Your task to perform on an android device: Open calendar and show me the second week of next month Image 0: 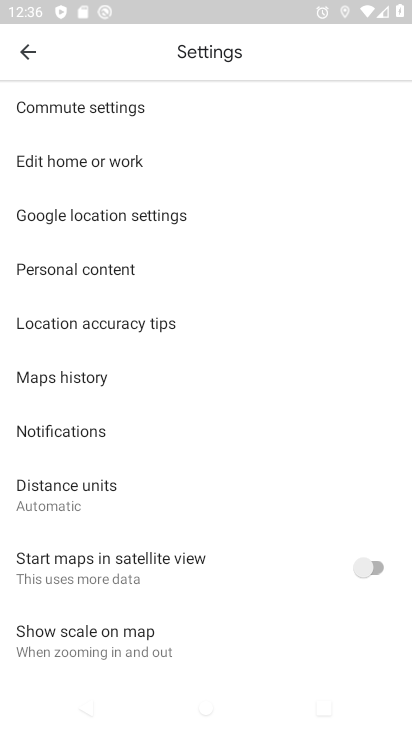
Step 0: press home button
Your task to perform on an android device: Open calendar and show me the second week of next month Image 1: 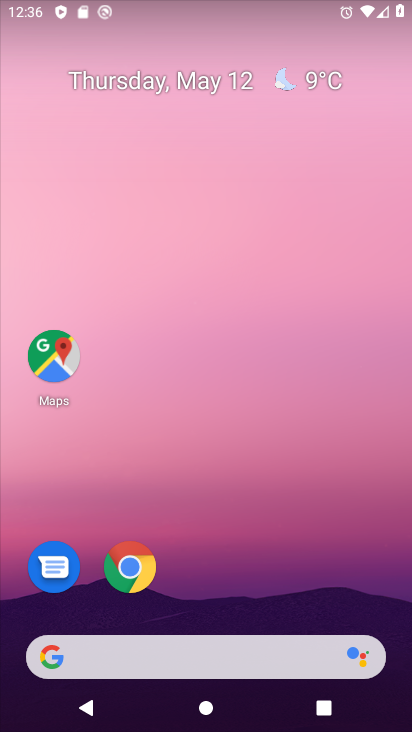
Step 1: drag from (187, 639) to (292, 78)
Your task to perform on an android device: Open calendar and show me the second week of next month Image 2: 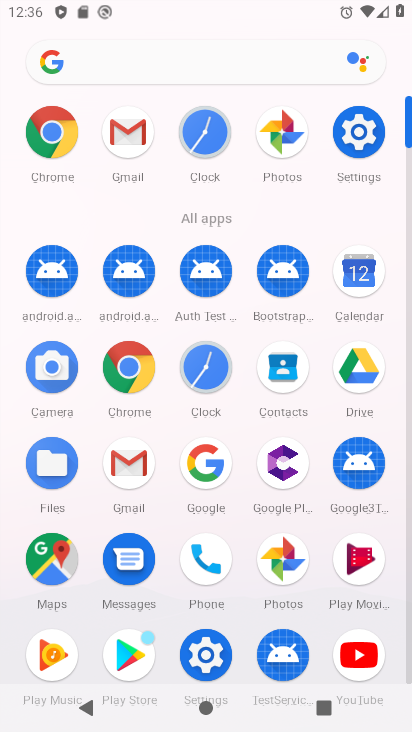
Step 2: click (380, 267)
Your task to perform on an android device: Open calendar and show me the second week of next month Image 3: 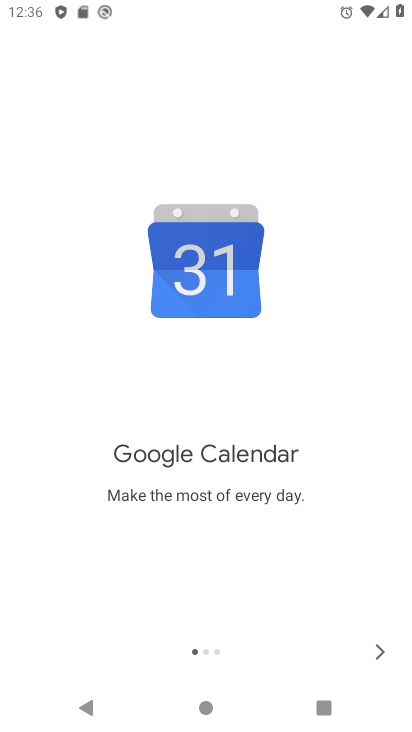
Step 3: click (388, 656)
Your task to perform on an android device: Open calendar and show me the second week of next month Image 4: 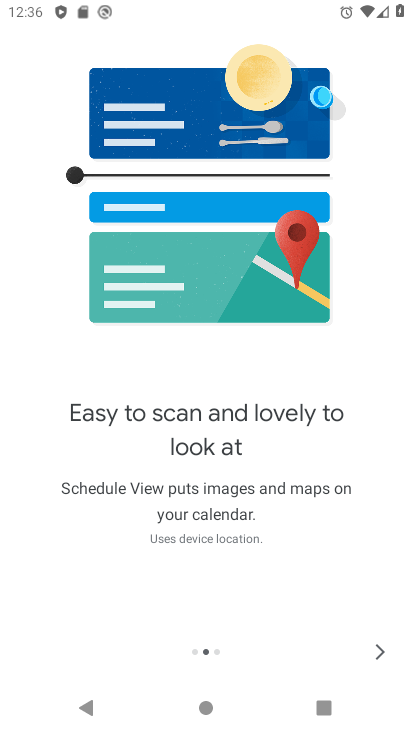
Step 4: click (387, 655)
Your task to perform on an android device: Open calendar and show me the second week of next month Image 5: 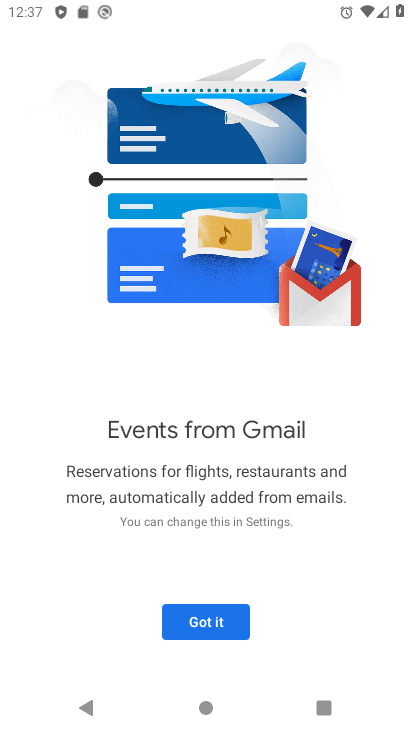
Step 5: click (183, 606)
Your task to perform on an android device: Open calendar and show me the second week of next month Image 6: 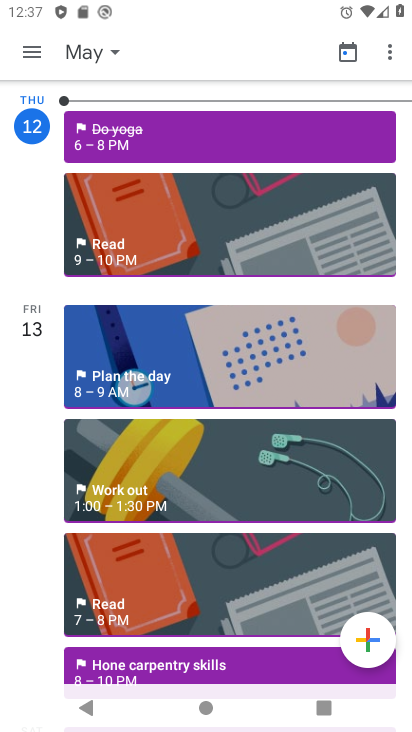
Step 6: click (28, 51)
Your task to perform on an android device: Open calendar and show me the second week of next month Image 7: 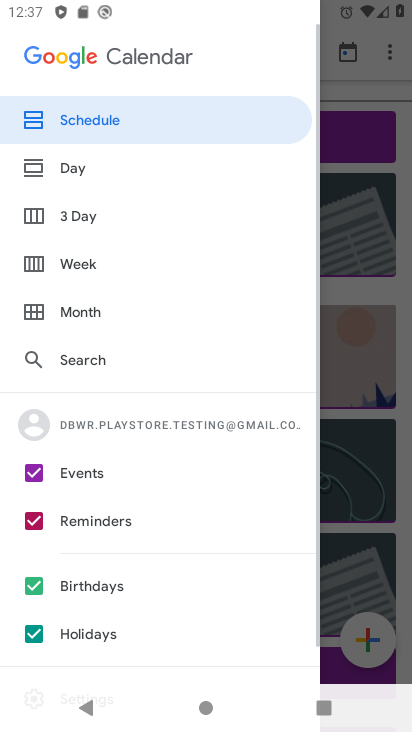
Step 7: click (141, 271)
Your task to perform on an android device: Open calendar and show me the second week of next month Image 8: 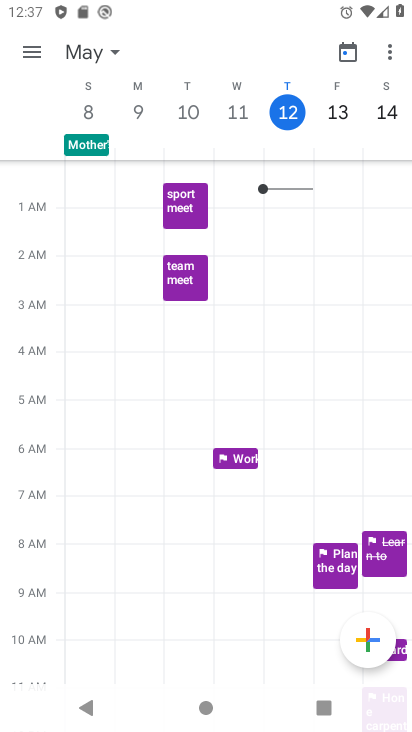
Step 8: click (101, 62)
Your task to perform on an android device: Open calendar and show me the second week of next month Image 9: 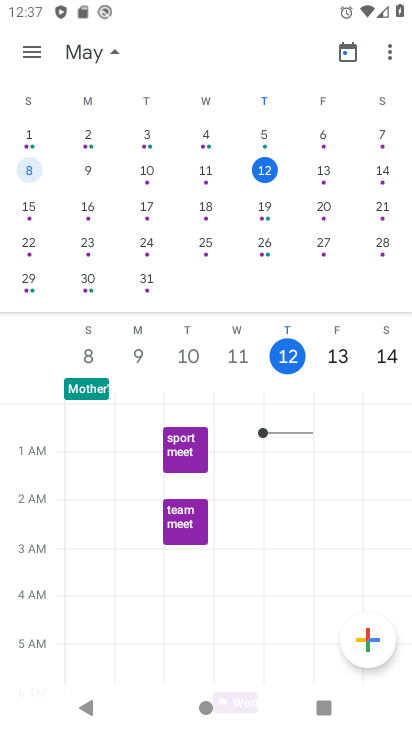
Step 9: drag from (390, 254) to (0, 185)
Your task to perform on an android device: Open calendar and show me the second week of next month Image 10: 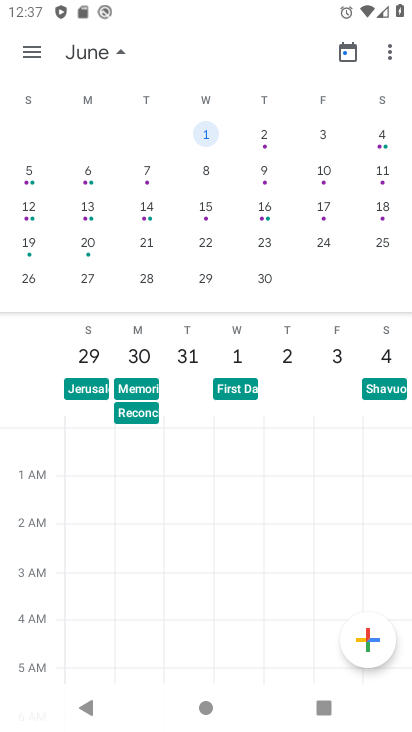
Step 10: click (29, 204)
Your task to perform on an android device: Open calendar and show me the second week of next month Image 11: 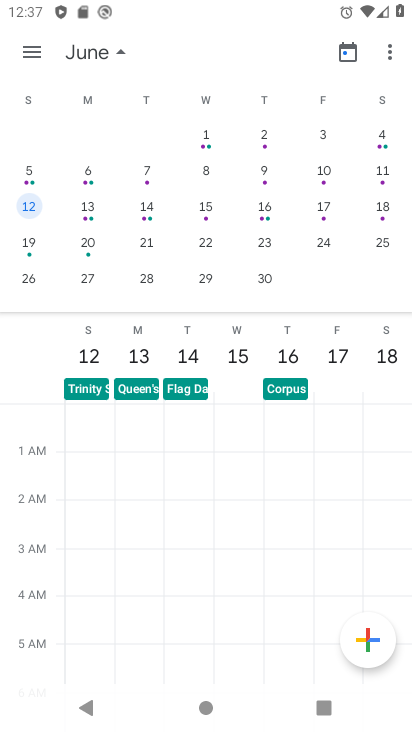
Step 11: click (120, 50)
Your task to perform on an android device: Open calendar and show me the second week of next month Image 12: 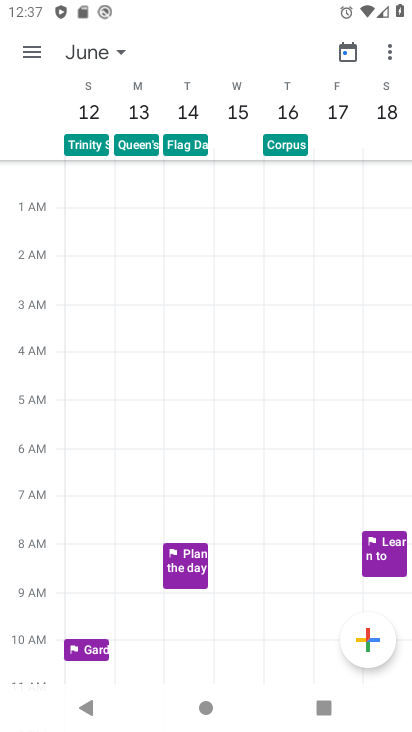
Step 12: task complete